Your task to perform on an android device: turn off sleep mode Image 0: 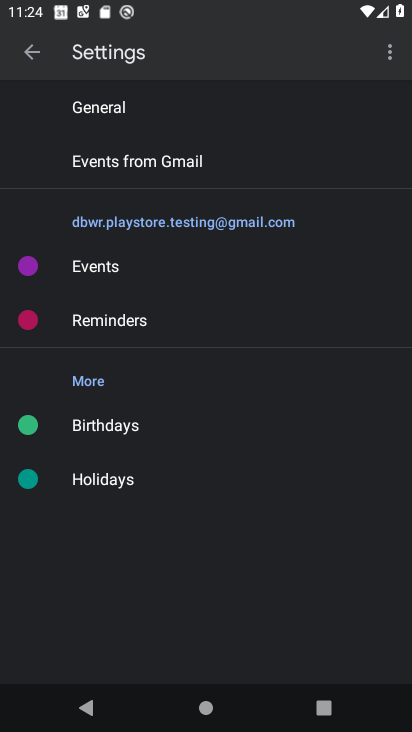
Step 0: press home button
Your task to perform on an android device: turn off sleep mode Image 1: 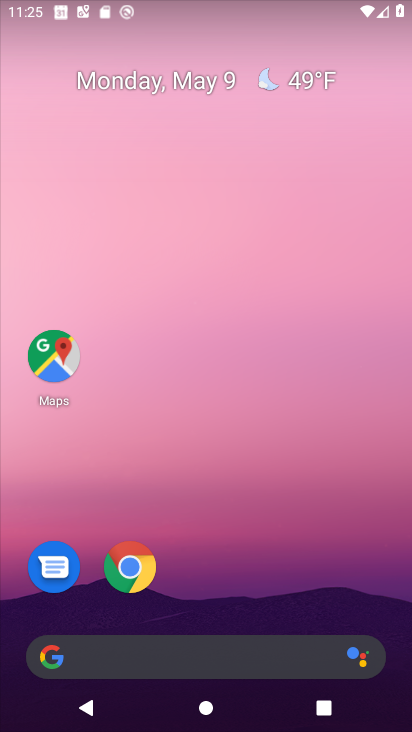
Step 1: drag from (201, 642) to (265, 213)
Your task to perform on an android device: turn off sleep mode Image 2: 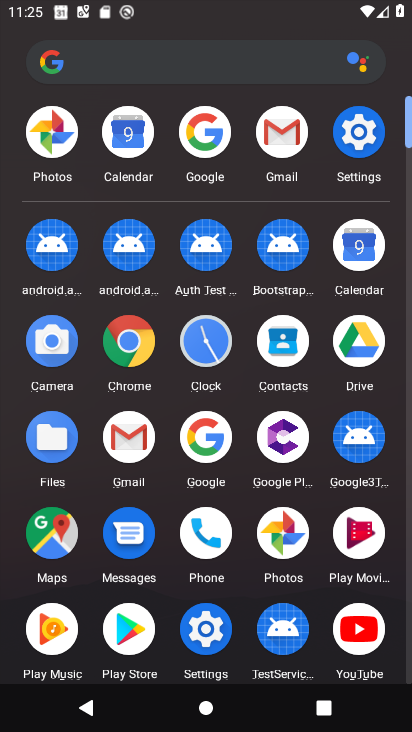
Step 2: click (347, 144)
Your task to perform on an android device: turn off sleep mode Image 3: 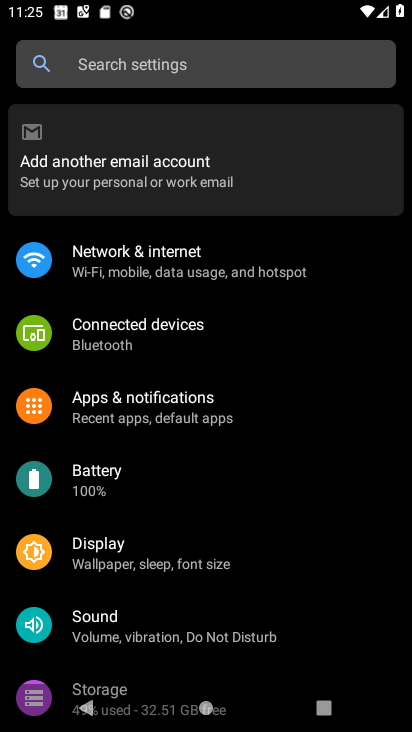
Step 3: click (133, 571)
Your task to perform on an android device: turn off sleep mode Image 4: 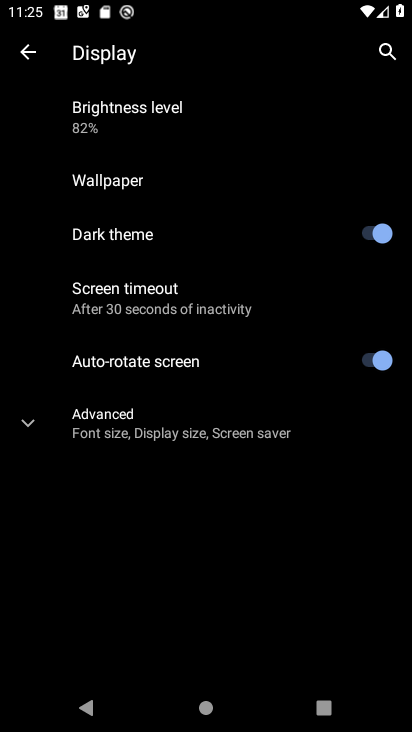
Step 4: click (122, 421)
Your task to perform on an android device: turn off sleep mode Image 5: 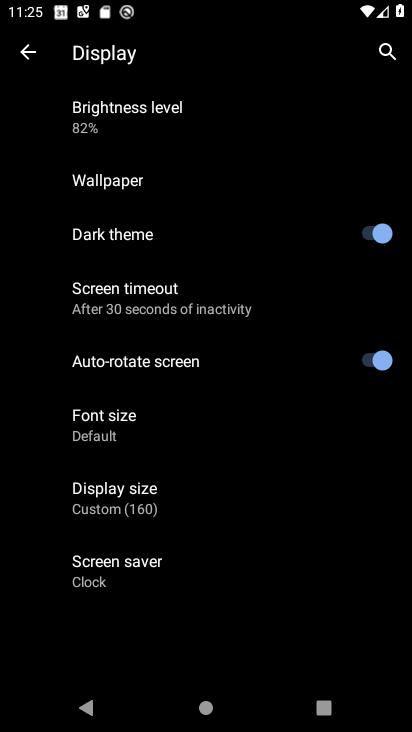
Step 5: click (120, 576)
Your task to perform on an android device: turn off sleep mode Image 6: 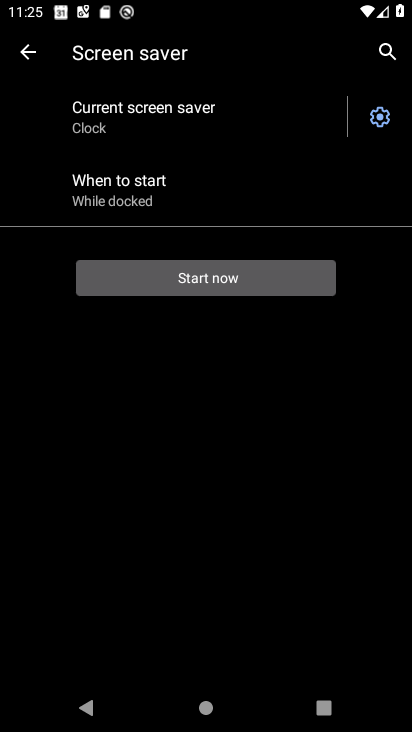
Step 6: click (31, 56)
Your task to perform on an android device: turn off sleep mode Image 7: 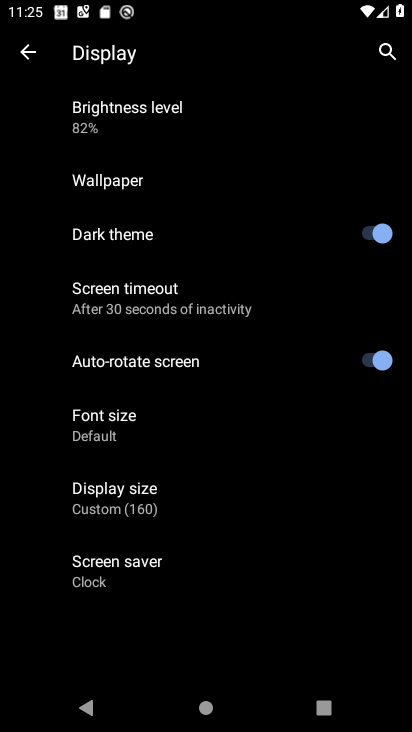
Step 7: click (154, 309)
Your task to perform on an android device: turn off sleep mode Image 8: 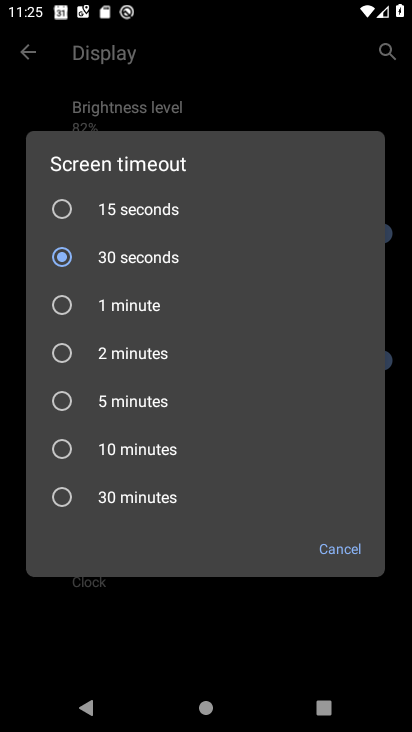
Step 8: click (54, 206)
Your task to perform on an android device: turn off sleep mode Image 9: 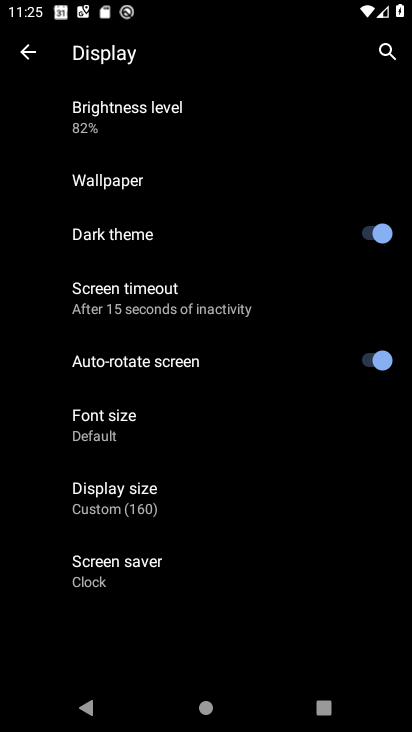
Step 9: task complete